Your task to perform on an android device: turn on data saver in the chrome app Image 0: 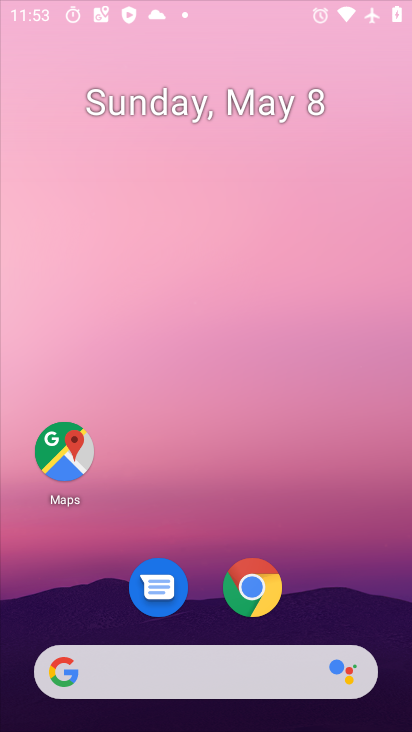
Step 0: drag from (411, 559) to (385, 424)
Your task to perform on an android device: turn on data saver in the chrome app Image 1: 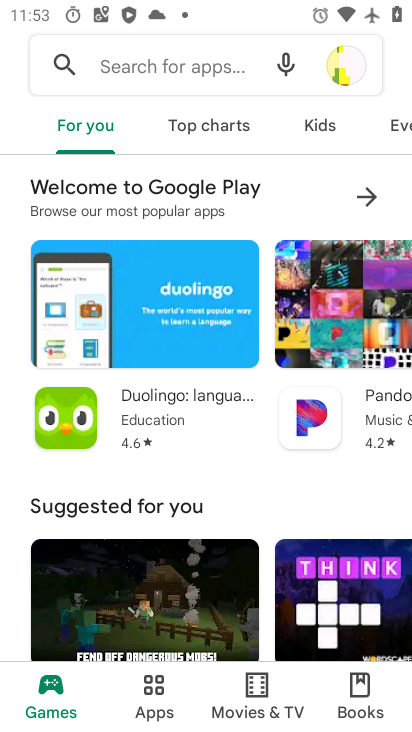
Step 1: press home button
Your task to perform on an android device: turn on data saver in the chrome app Image 2: 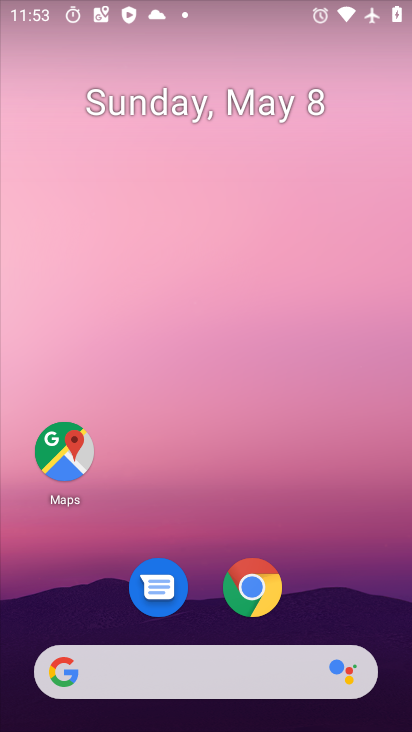
Step 2: click (210, 129)
Your task to perform on an android device: turn on data saver in the chrome app Image 3: 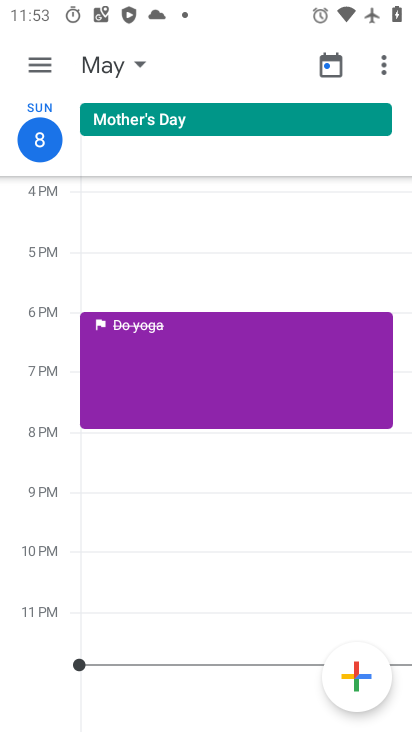
Step 3: drag from (318, 552) to (205, 225)
Your task to perform on an android device: turn on data saver in the chrome app Image 4: 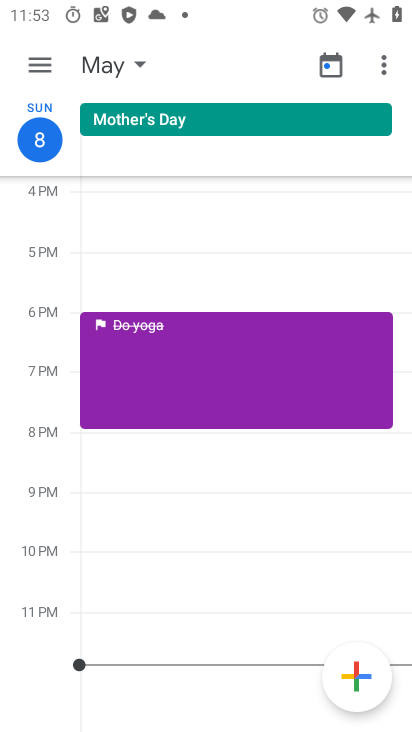
Step 4: drag from (379, 60) to (363, 124)
Your task to perform on an android device: turn on data saver in the chrome app Image 5: 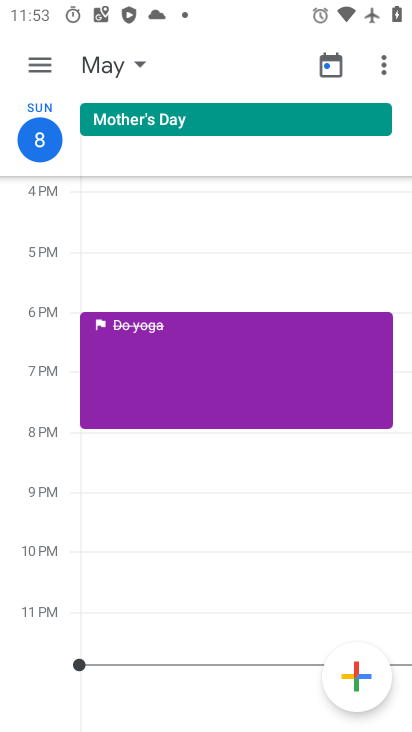
Step 5: click (384, 64)
Your task to perform on an android device: turn on data saver in the chrome app Image 6: 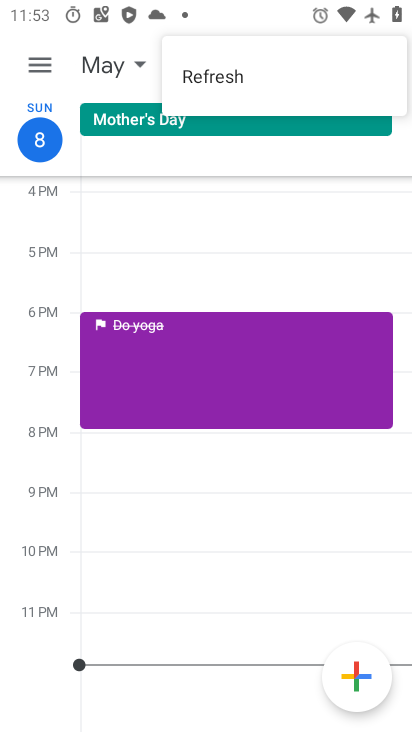
Step 6: click (368, 60)
Your task to perform on an android device: turn on data saver in the chrome app Image 7: 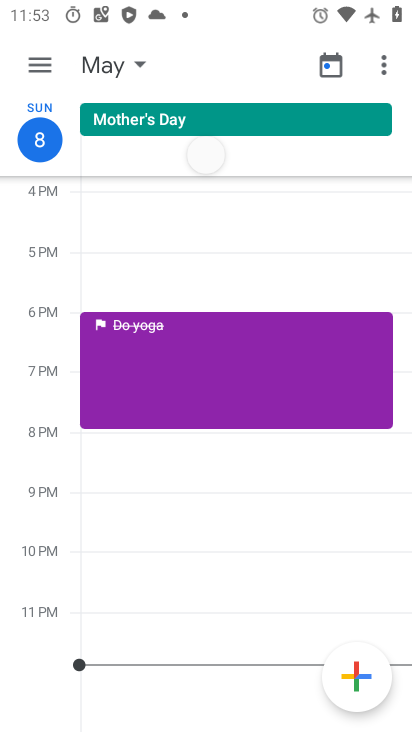
Step 7: click (383, 67)
Your task to perform on an android device: turn on data saver in the chrome app Image 8: 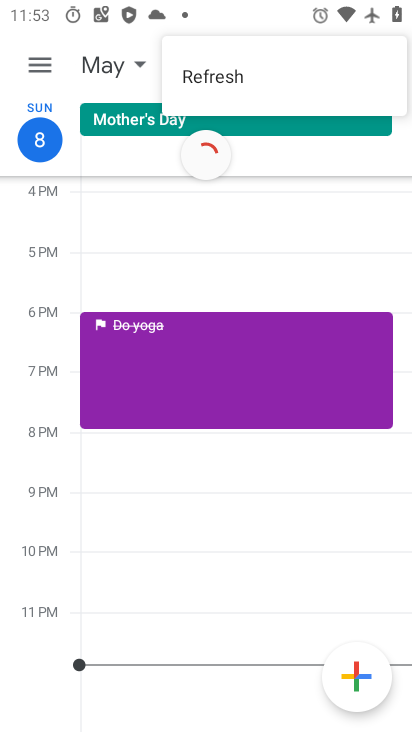
Step 8: press home button
Your task to perform on an android device: turn on data saver in the chrome app Image 9: 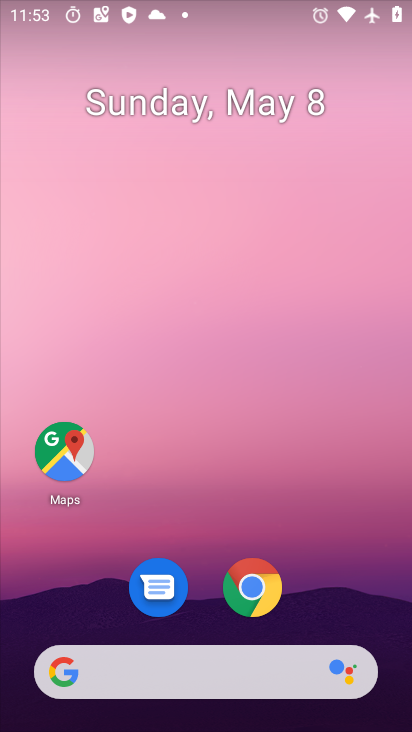
Step 9: drag from (359, 598) to (175, 77)
Your task to perform on an android device: turn on data saver in the chrome app Image 10: 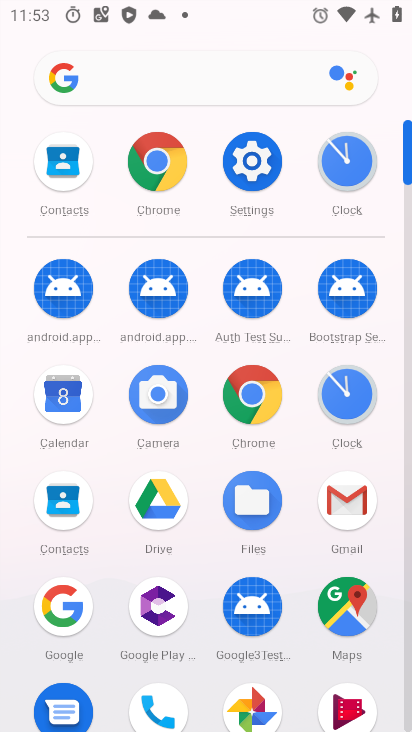
Step 10: click (161, 174)
Your task to perform on an android device: turn on data saver in the chrome app Image 11: 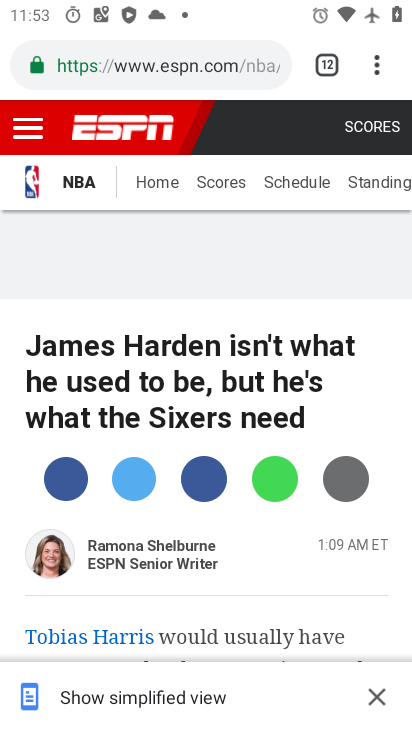
Step 11: drag from (374, 64) to (125, 639)
Your task to perform on an android device: turn on data saver in the chrome app Image 12: 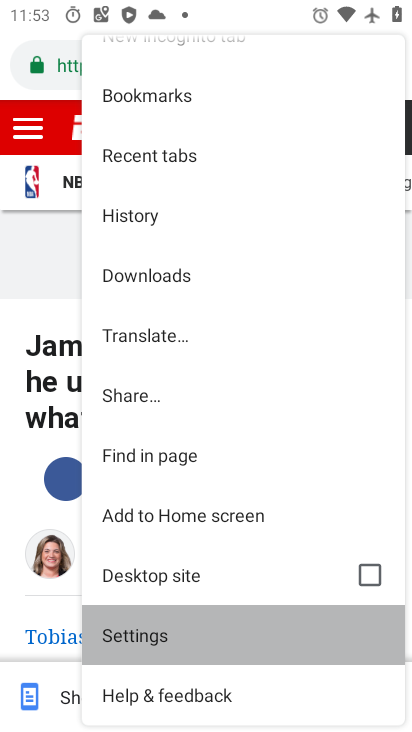
Step 12: click (120, 645)
Your task to perform on an android device: turn on data saver in the chrome app Image 13: 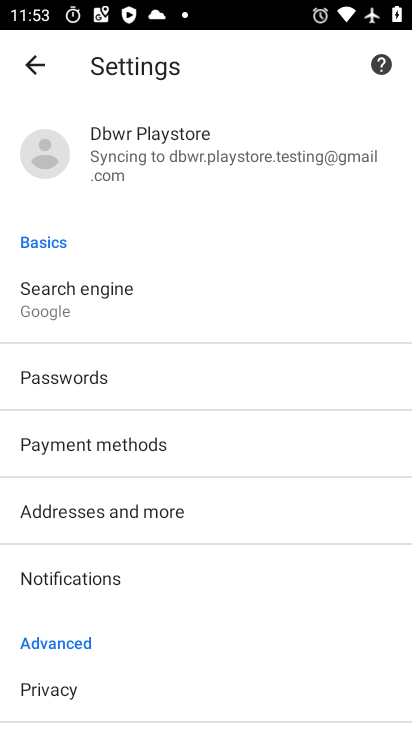
Step 13: drag from (103, 636) to (100, 44)
Your task to perform on an android device: turn on data saver in the chrome app Image 14: 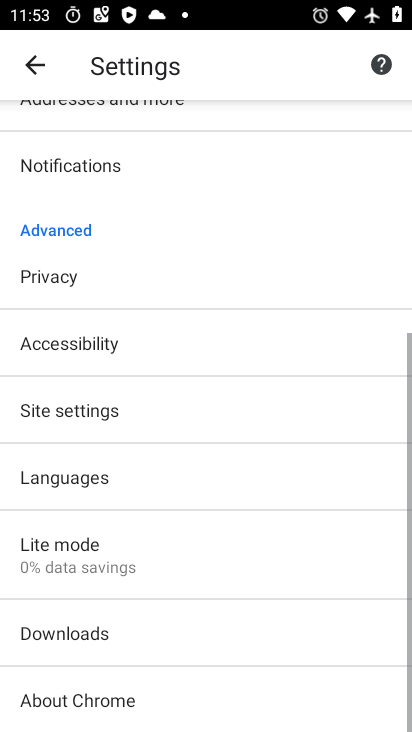
Step 14: drag from (151, 546) to (109, 79)
Your task to perform on an android device: turn on data saver in the chrome app Image 15: 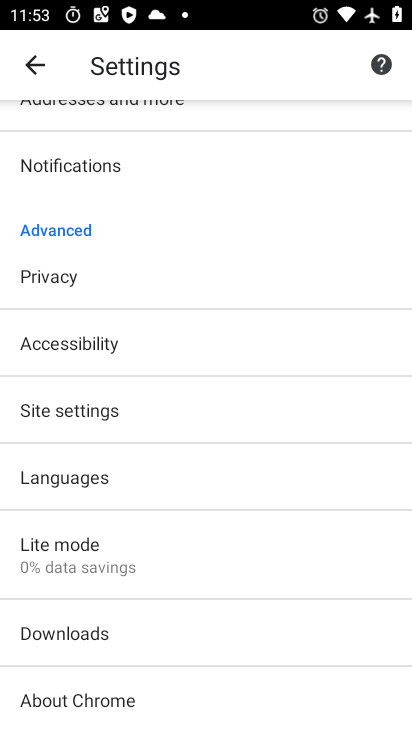
Step 15: click (52, 540)
Your task to perform on an android device: turn on data saver in the chrome app Image 16: 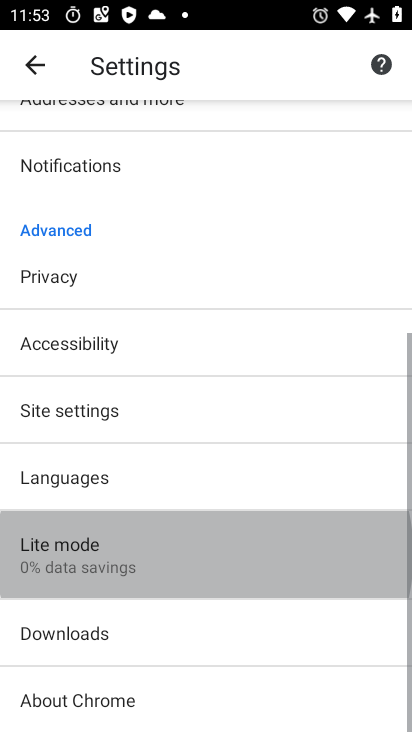
Step 16: click (51, 541)
Your task to perform on an android device: turn on data saver in the chrome app Image 17: 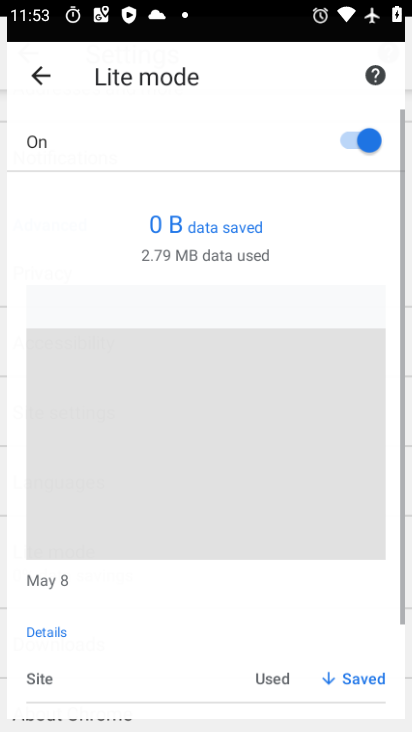
Step 17: click (51, 540)
Your task to perform on an android device: turn on data saver in the chrome app Image 18: 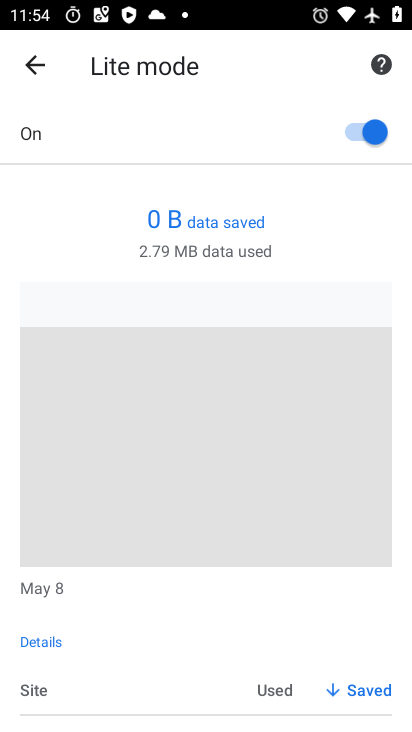
Step 18: click (40, 62)
Your task to perform on an android device: turn on data saver in the chrome app Image 19: 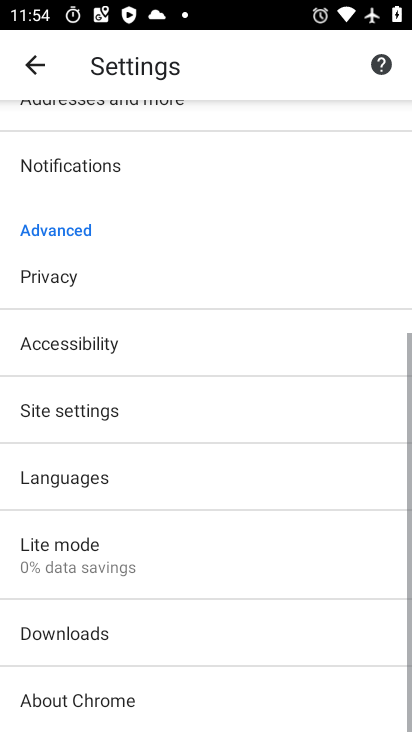
Step 19: press home button
Your task to perform on an android device: turn on data saver in the chrome app Image 20: 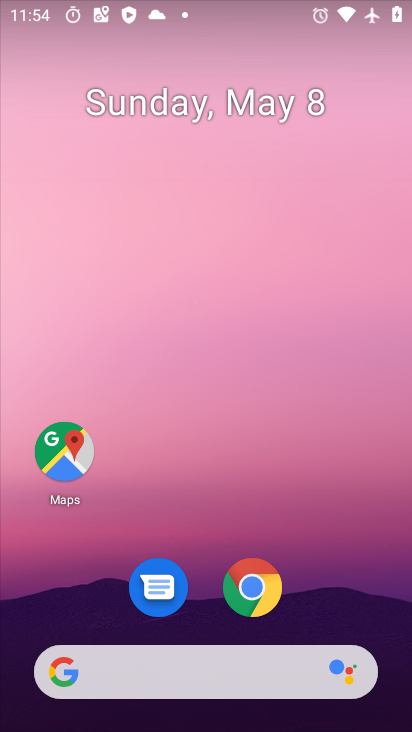
Step 20: drag from (340, 615) to (118, 170)
Your task to perform on an android device: turn on data saver in the chrome app Image 21: 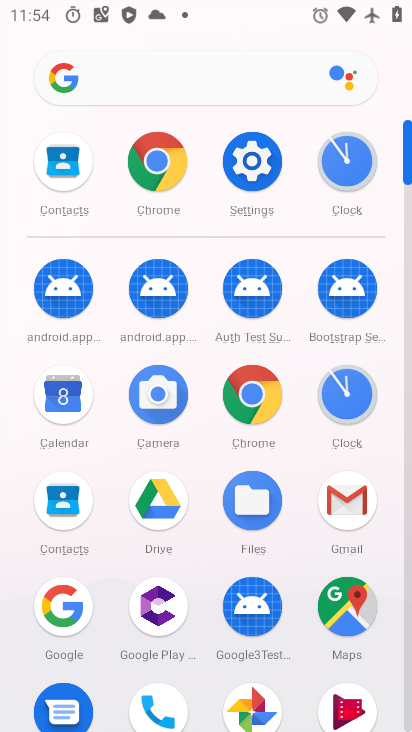
Step 21: click (164, 160)
Your task to perform on an android device: turn on data saver in the chrome app Image 22: 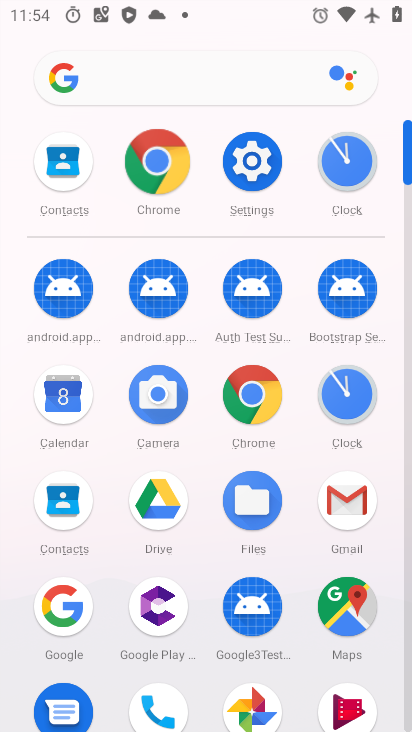
Step 22: click (164, 173)
Your task to perform on an android device: turn on data saver in the chrome app Image 23: 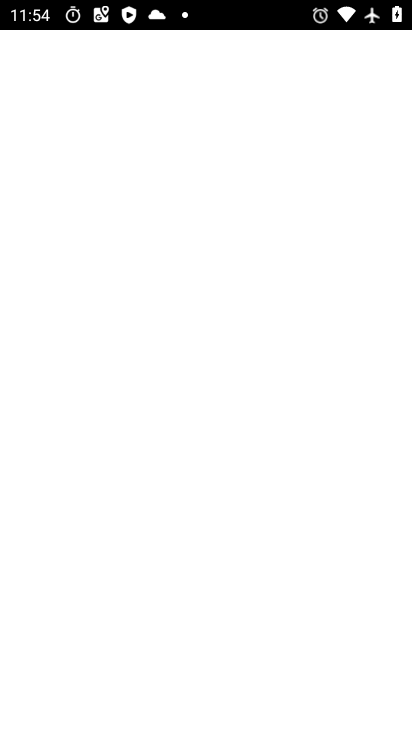
Step 23: click (164, 173)
Your task to perform on an android device: turn on data saver in the chrome app Image 24: 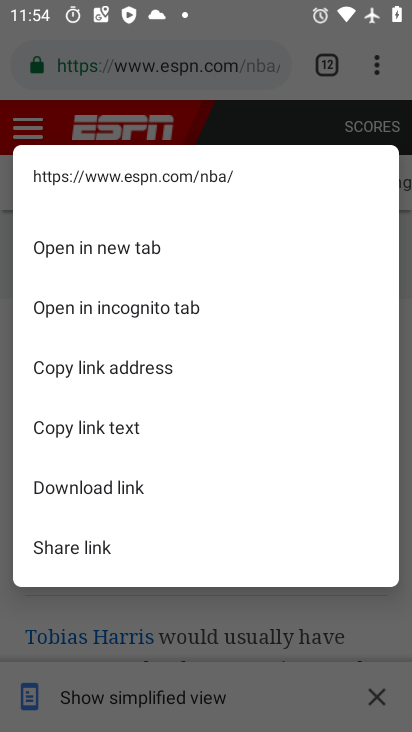
Step 24: click (124, 249)
Your task to perform on an android device: turn on data saver in the chrome app Image 25: 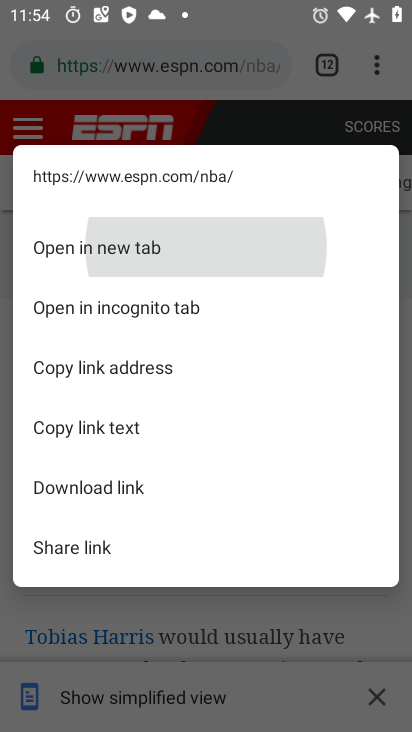
Step 25: click (127, 247)
Your task to perform on an android device: turn on data saver in the chrome app Image 26: 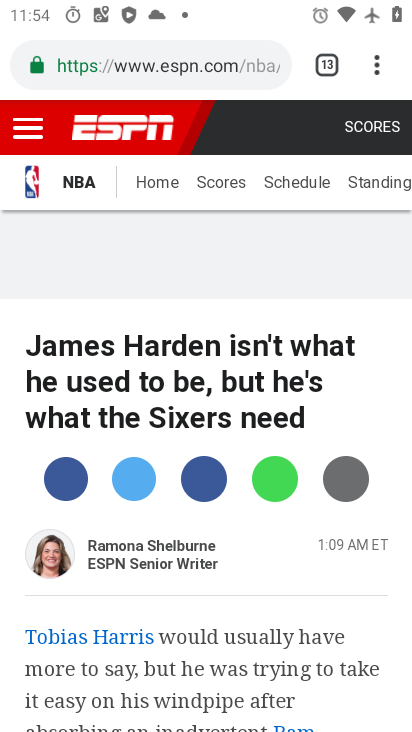
Step 26: click (128, 246)
Your task to perform on an android device: turn on data saver in the chrome app Image 27: 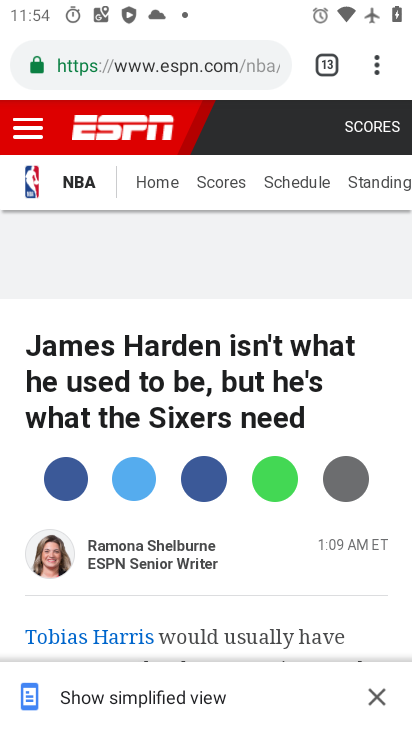
Step 27: drag from (375, 67) to (139, 634)
Your task to perform on an android device: turn on data saver in the chrome app Image 28: 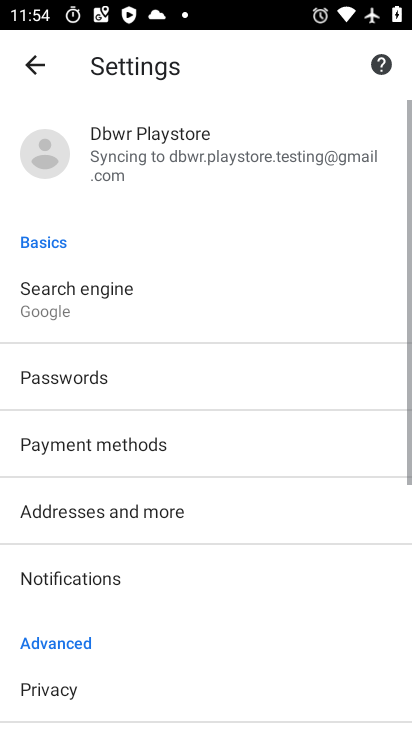
Step 28: drag from (221, 658) to (140, 194)
Your task to perform on an android device: turn on data saver in the chrome app Image 29: 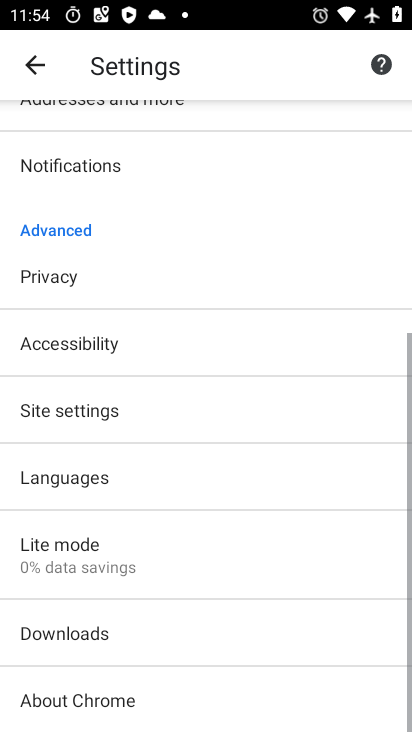
Step 29: drag from (201, 500) to (211, 177)
Your task to perform on an android device: turn on data saver in the chrome app Image 30: 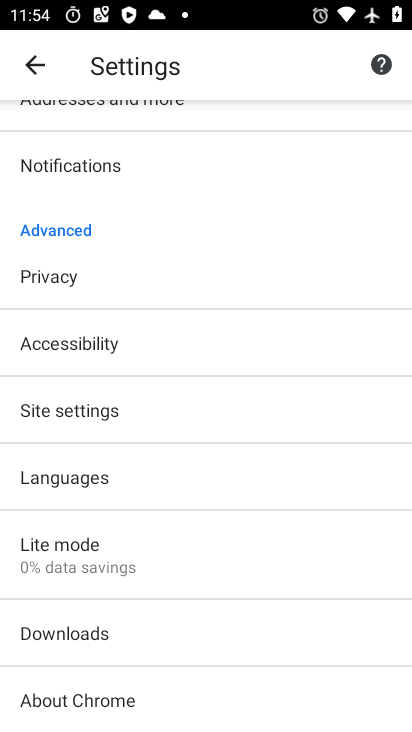
Step 30: click (85, 553)
Your task to perform on an android device: turn on data saver in the chrome app Image 31: 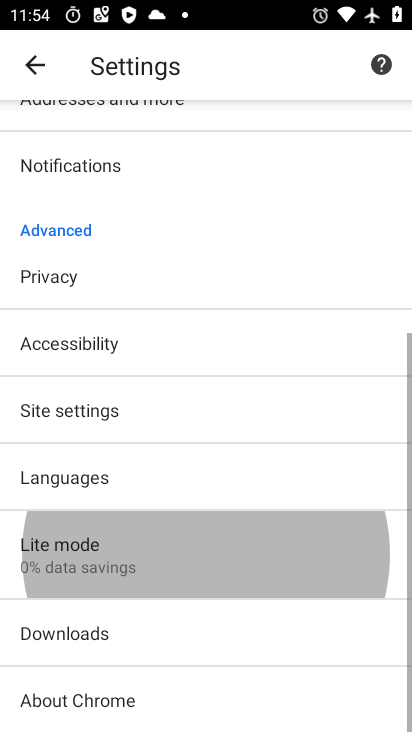
Step 31: click (80, 553)
Your task to perform on an android device: turn on data saver in the chrome app Image 32: 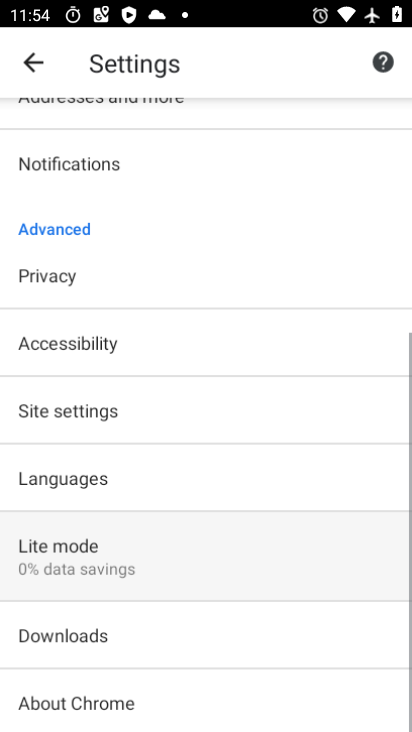
Step 32: click (80, 553)
Your task to perform on an android device: turn on data saver in the chrome app Image 33: 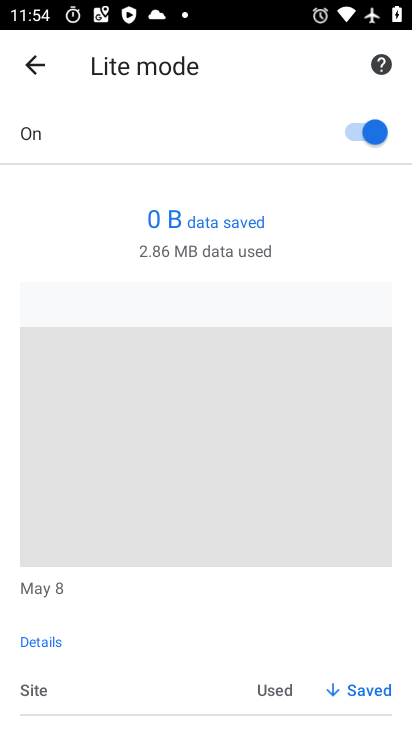
Step 33: task complete